Your task to perform on an android device: Open wifi settings Image 0: 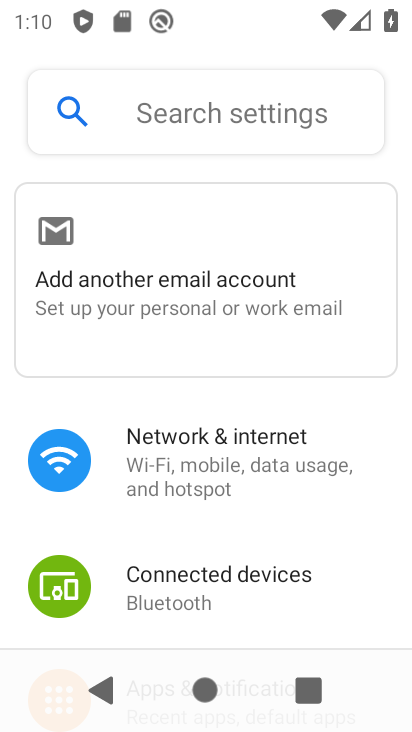
Step 0: drag from (176, 8) to (187, 541)
Your task to perform on an android device: Open wifi settings Image 1: 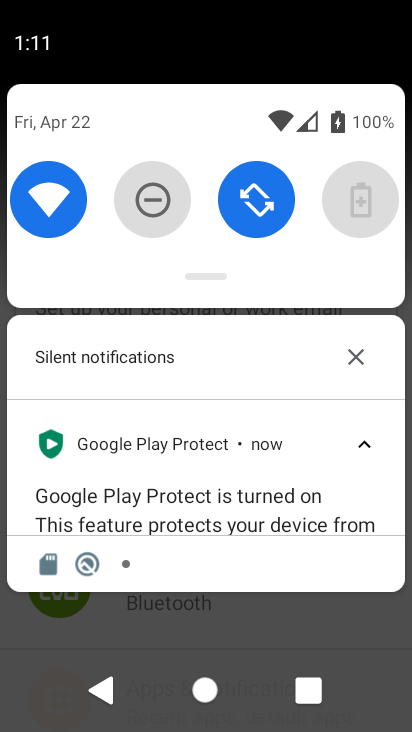
Step 1: click (60, 205)
Your task to perform on an android device: Open wifi settings Image 2: 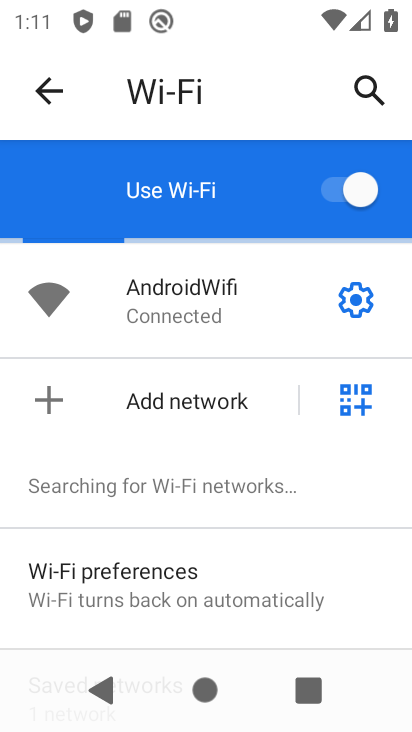
Step 2: task complete